Your task to perform on an android device: turn off notifications settings in the gmail app Image 0: 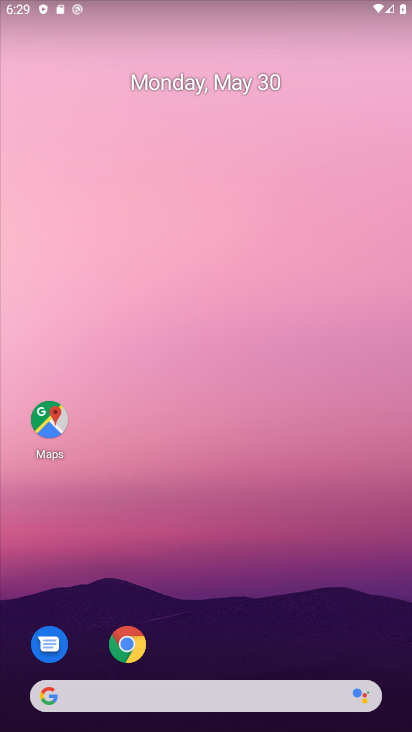
Step 0: click (276, 59)
Your task to perform on an android device: turn off notifications settings in the gmail app Image 1: 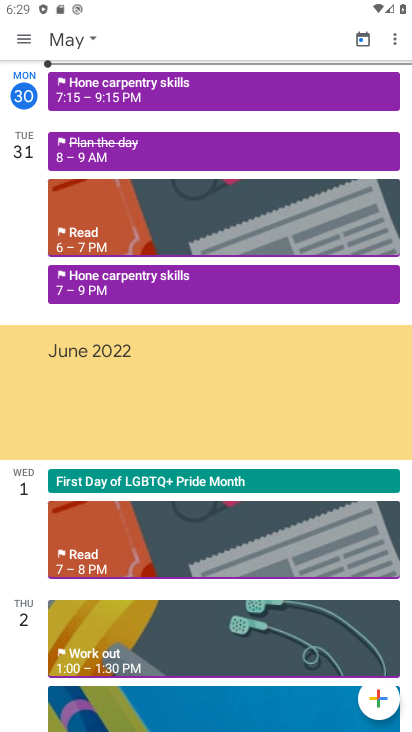
Step 1: press back button
Your task to perform on an android device: turn off notifications settings in the gmail app Image 2: 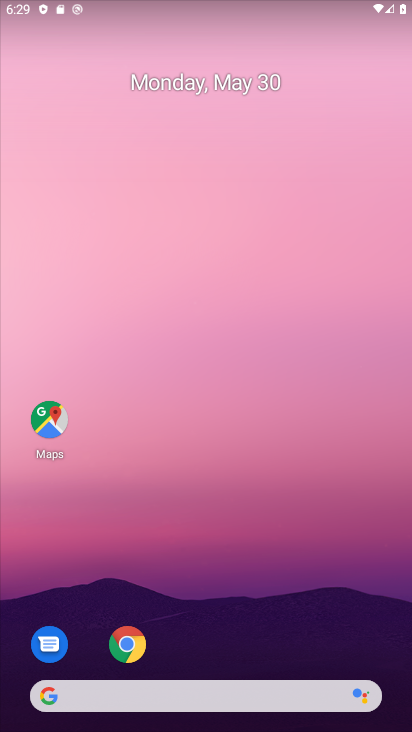
Step 2: drag from (205, 630) to (216, 110)
Your task to perform on an android device: turn off notifications settings in the gmail app Image 3: 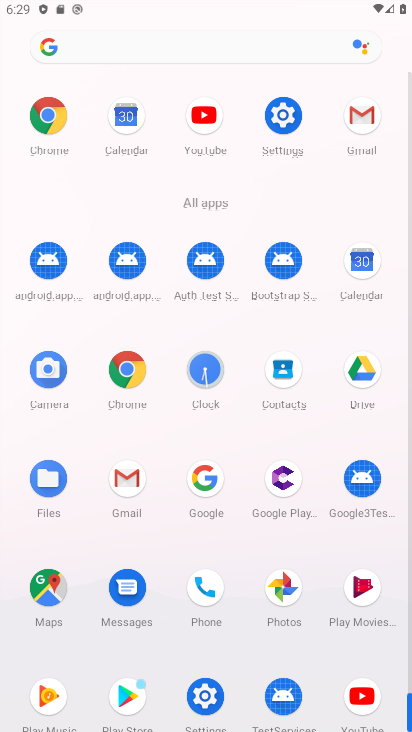
Step 3: click (293, 123)
Your task to perform on an android device: turn off notifications settings in the gmail app Image 4: 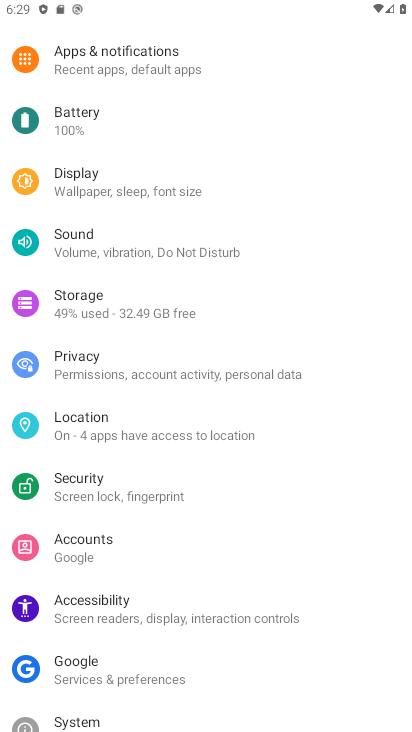
Step 4: click (140, 41)
Your task to perform on an android device: turn off notifications settings in the gmail app Image 5: 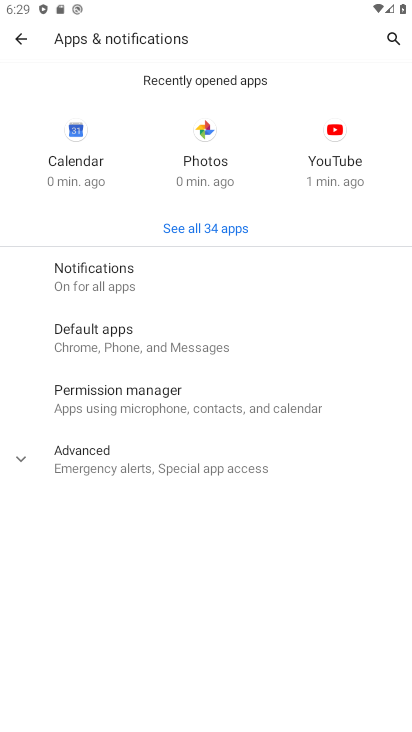
Step 5: click (111, 279)
Your task to perform on an android device: turn off notifications settings in the gmail app Image 6: 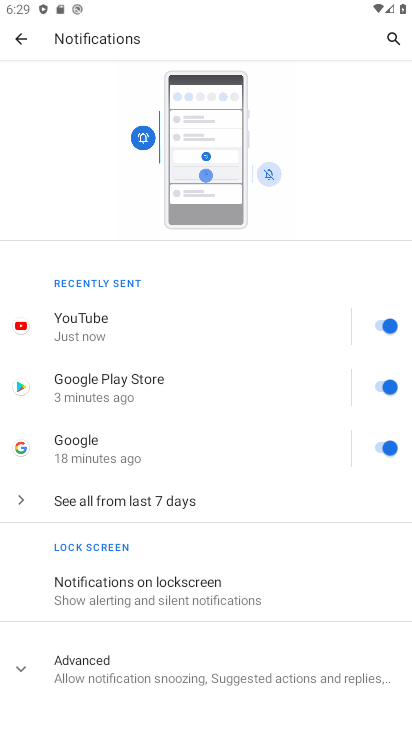
Step 6: click (144, 584)
Your task to perform on an android device: turn off notifications settings in the gmail app Image 7: 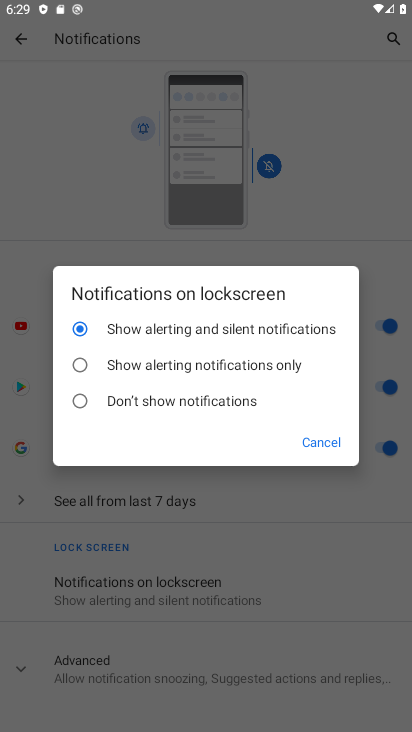
Step 7: click (82, 405)
Your task to perform on an android device: turn off notifications settings in the gmail app Image 8: 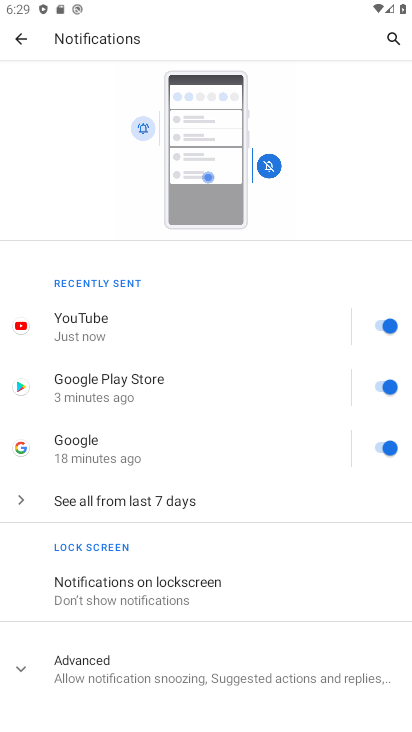
Step 8: task complete